Your task to perform on an android device: Search for top rated burger restaurants on Maps Image 0: 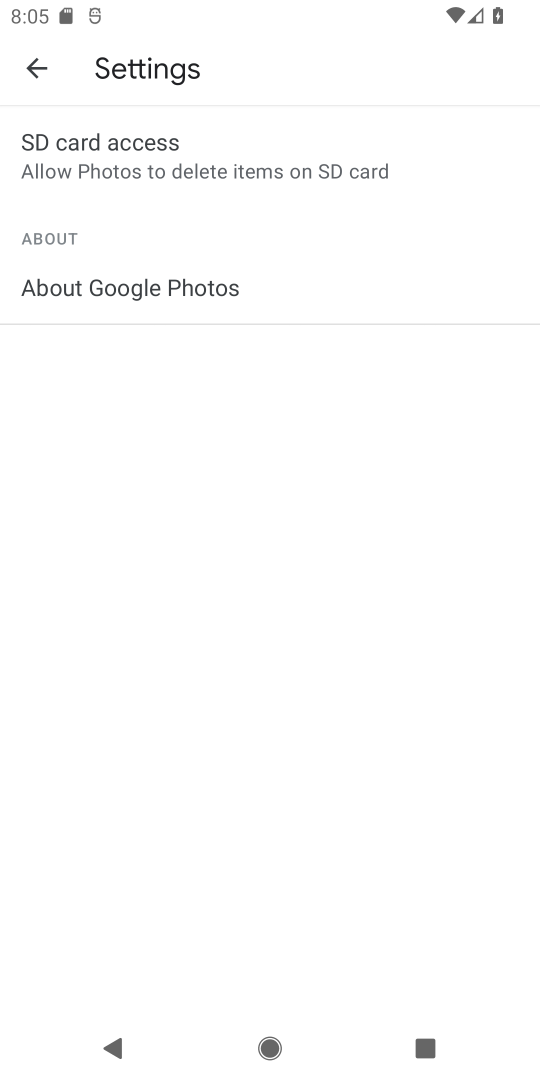
Step 0: press home button
Your task to perform on an android device: Search for top rated burger restaurants on Maps Image 1: 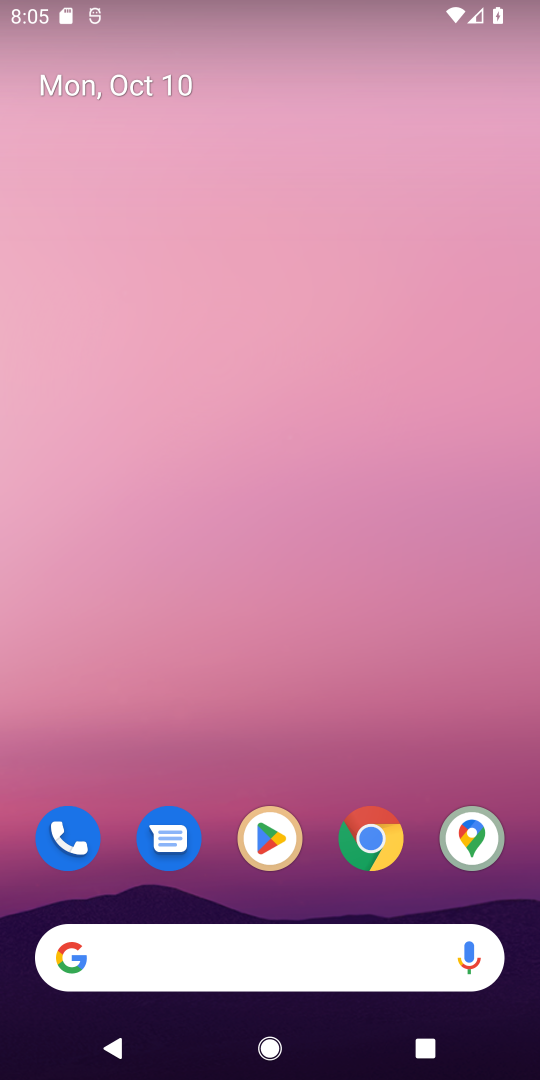
Step 1: click (471, 838)
Your task to perform on an android device: Search for top rated burger restaurants on Maps Image 2: 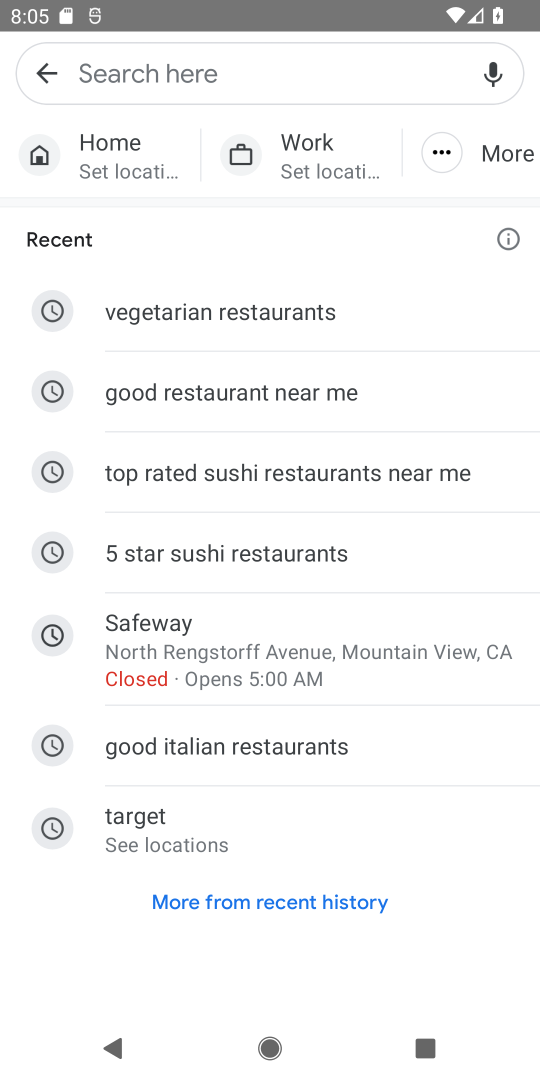
Step 2: click (158, 63)
Your task to perform on an android device: Search for top rated burger restaurants on Maps Image 3: 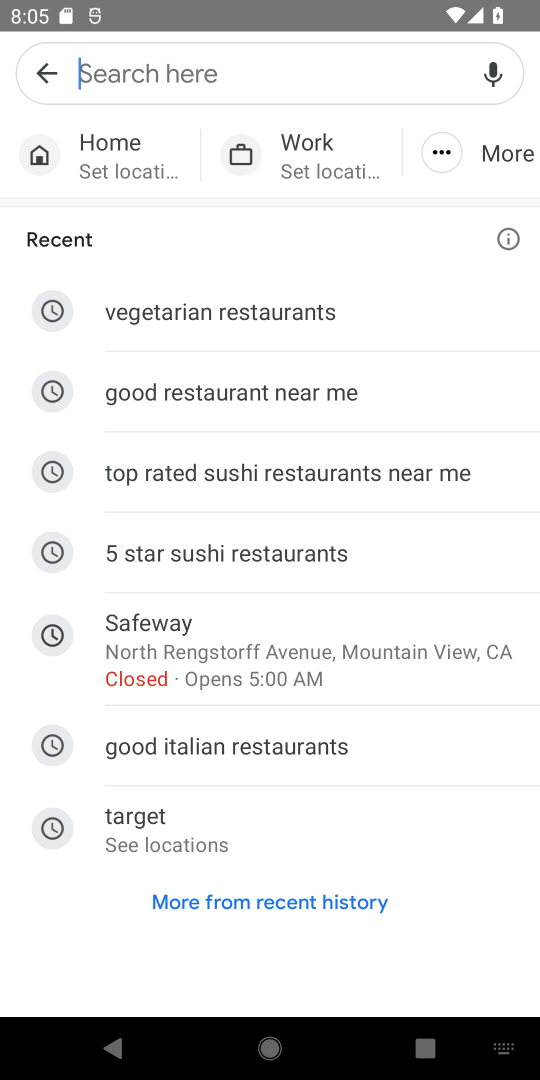
Step 3: type "top rated burger restaurants"
Your task to perform on an android device: Search for top rated burger restaurants on Maps Image 4: 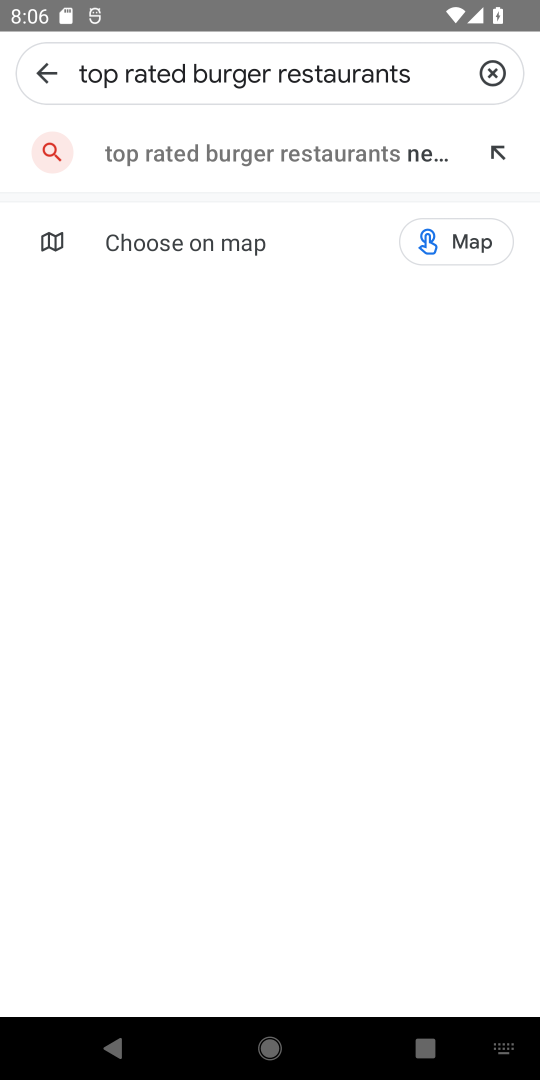
Step 4: click (284, 157)
Your task to perform on an android device: Search for top rated burger restaurants on Maps Image 5: 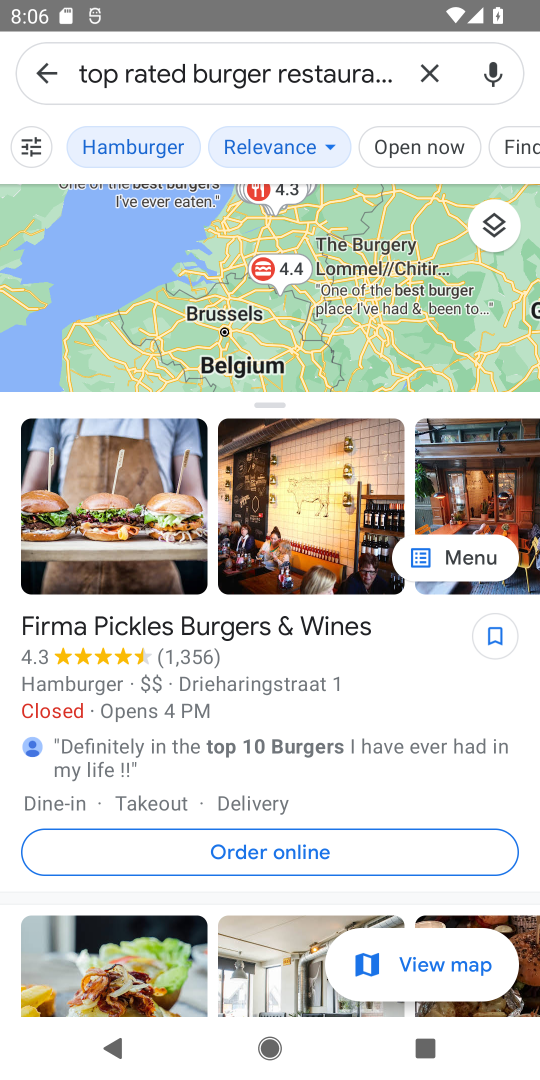
Step 5: task complete